Your task to perform on an android device: Clear the cart on target.com. Add "bose quietcomfort 35" to the cart on target.com Image 0: 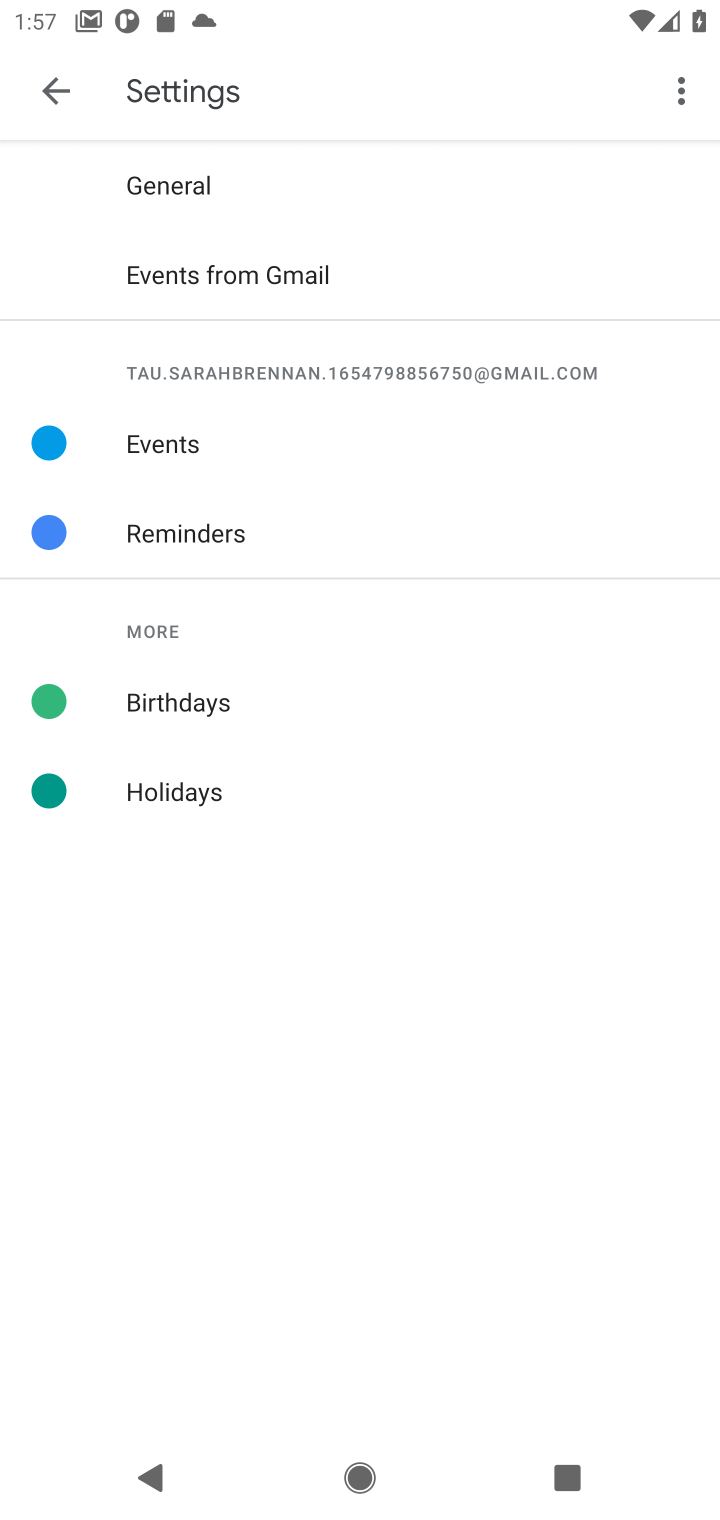
Step 0: press home button
Your task to perform on an android device: Clear the cart on target.com. Add "bose quietcomfort 35" to the cart on target.com Image 1: 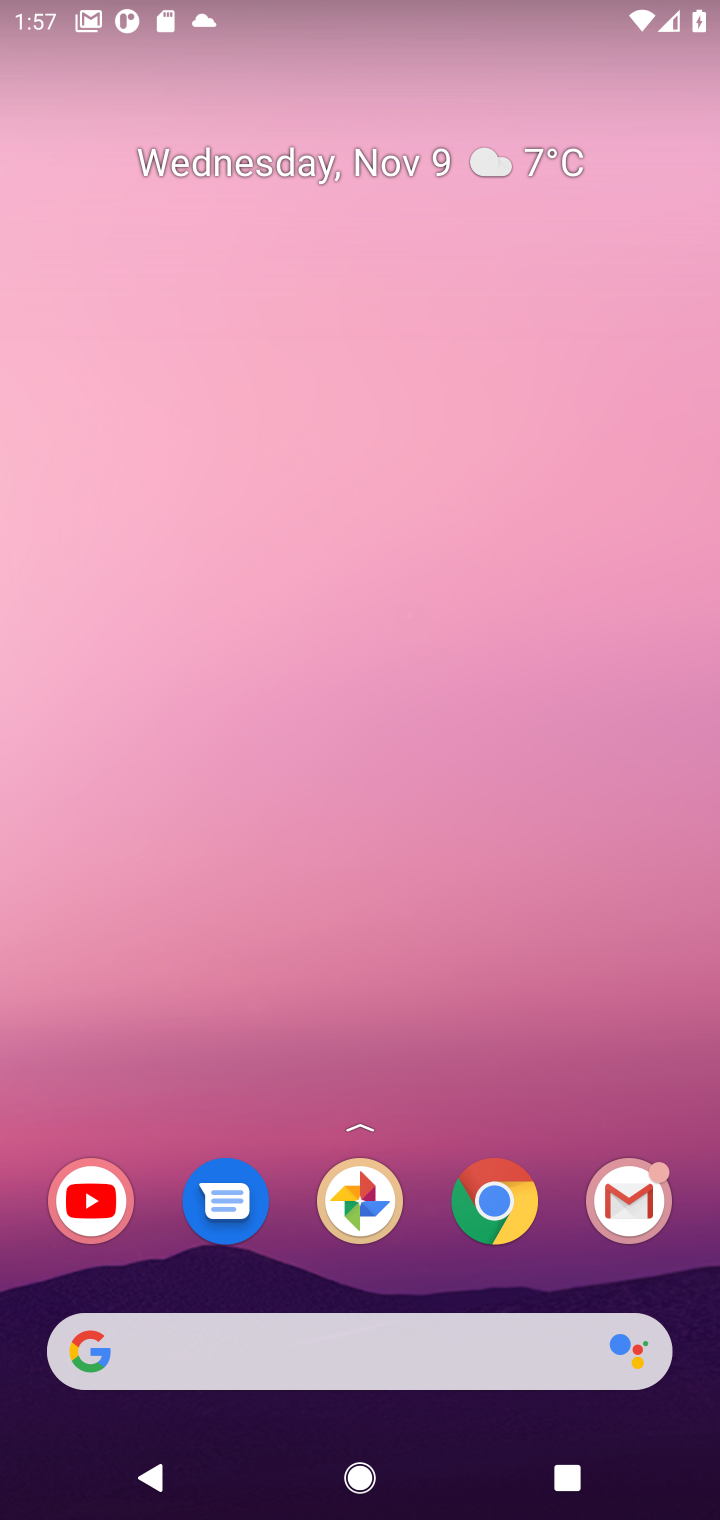
Step 1: click (358, 1348)
Your task to perform on an android device: Clear the cart on target.com. Add "bose quietcomfort 35" to the cart on target.com Image 2: 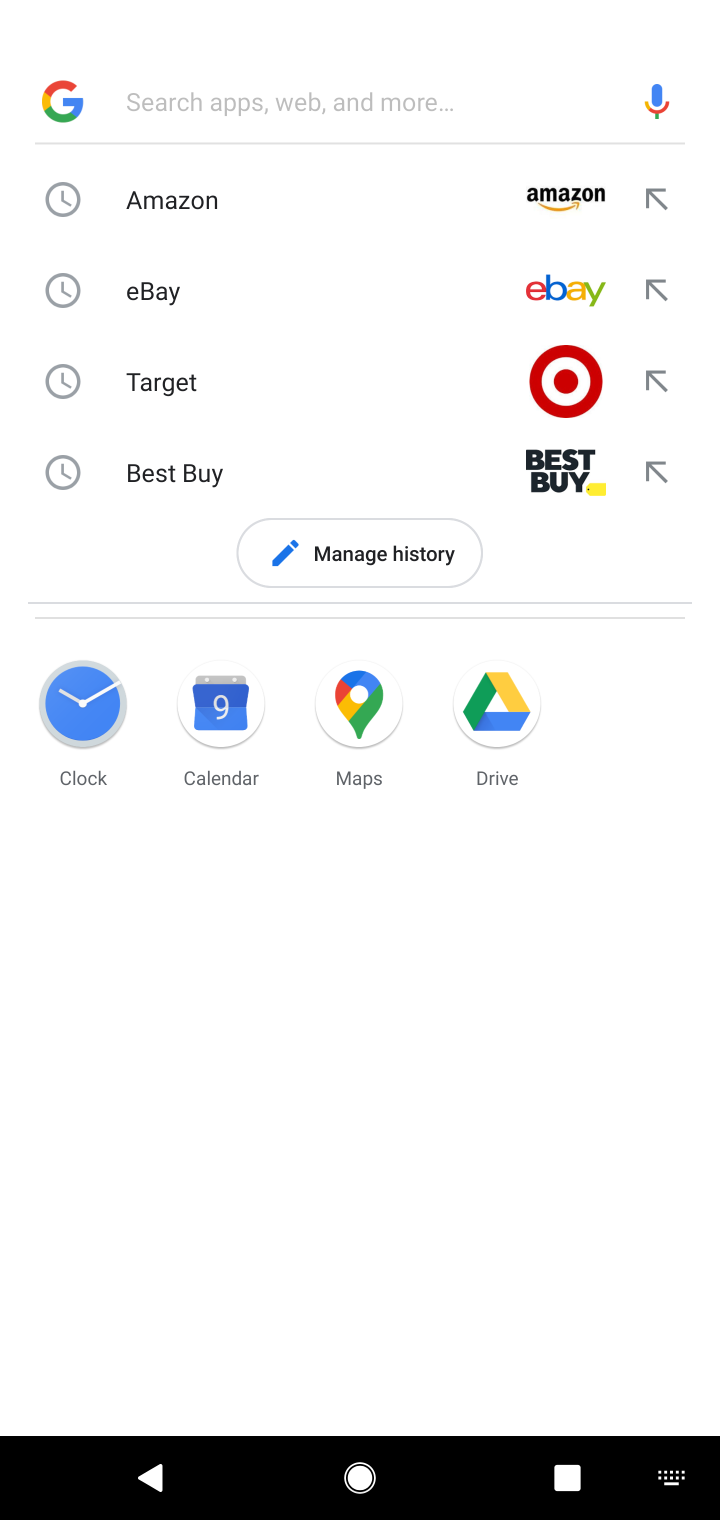
Step 2: click (155, 385)
Your task to perform on an android device: Clear the cart on target.com. Add "bose quietcomfort 35" to the cart on target.com Image 3: 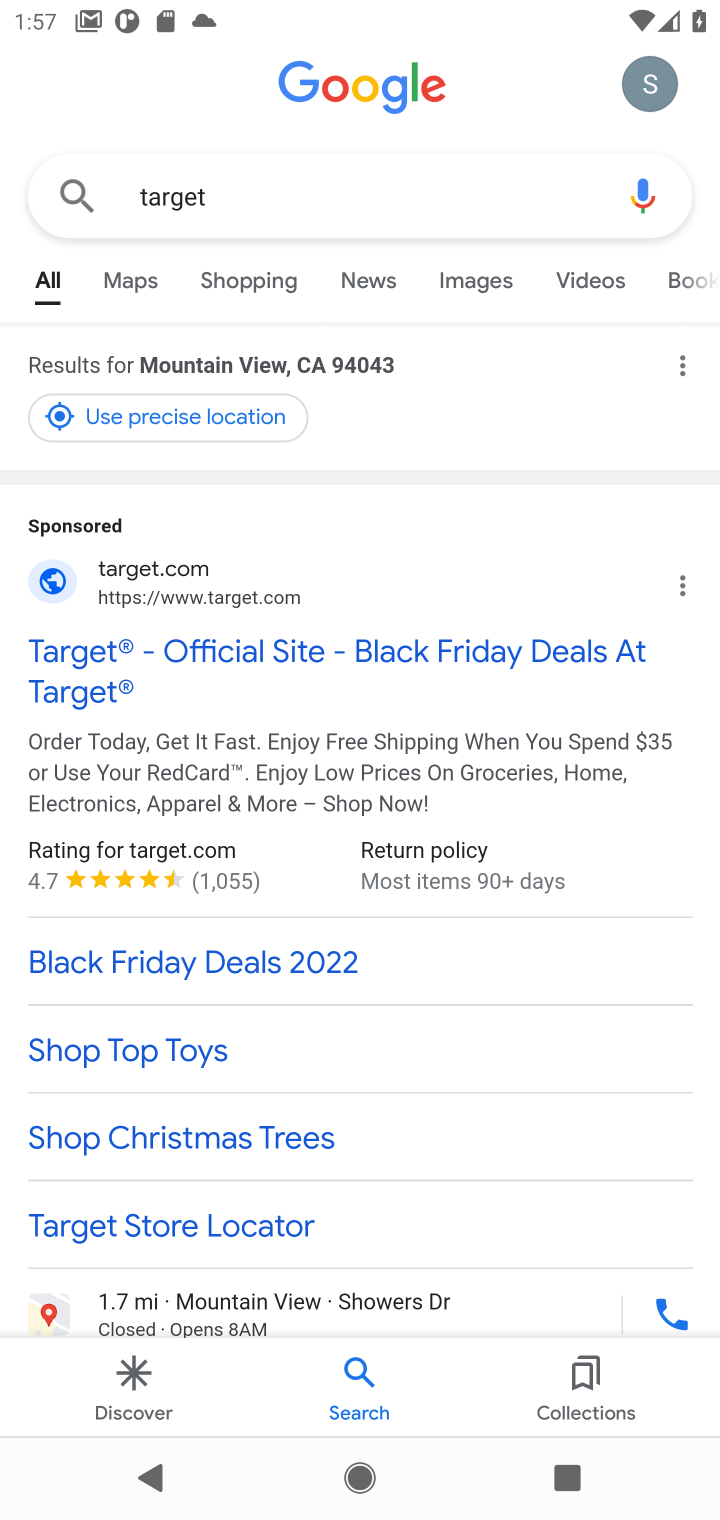
Step 3: click (151, 592)
Your task to perform on an android device: Clear the cart on target.com. Add "bose quietcomfort 35" to the cart on target.com Image 4: 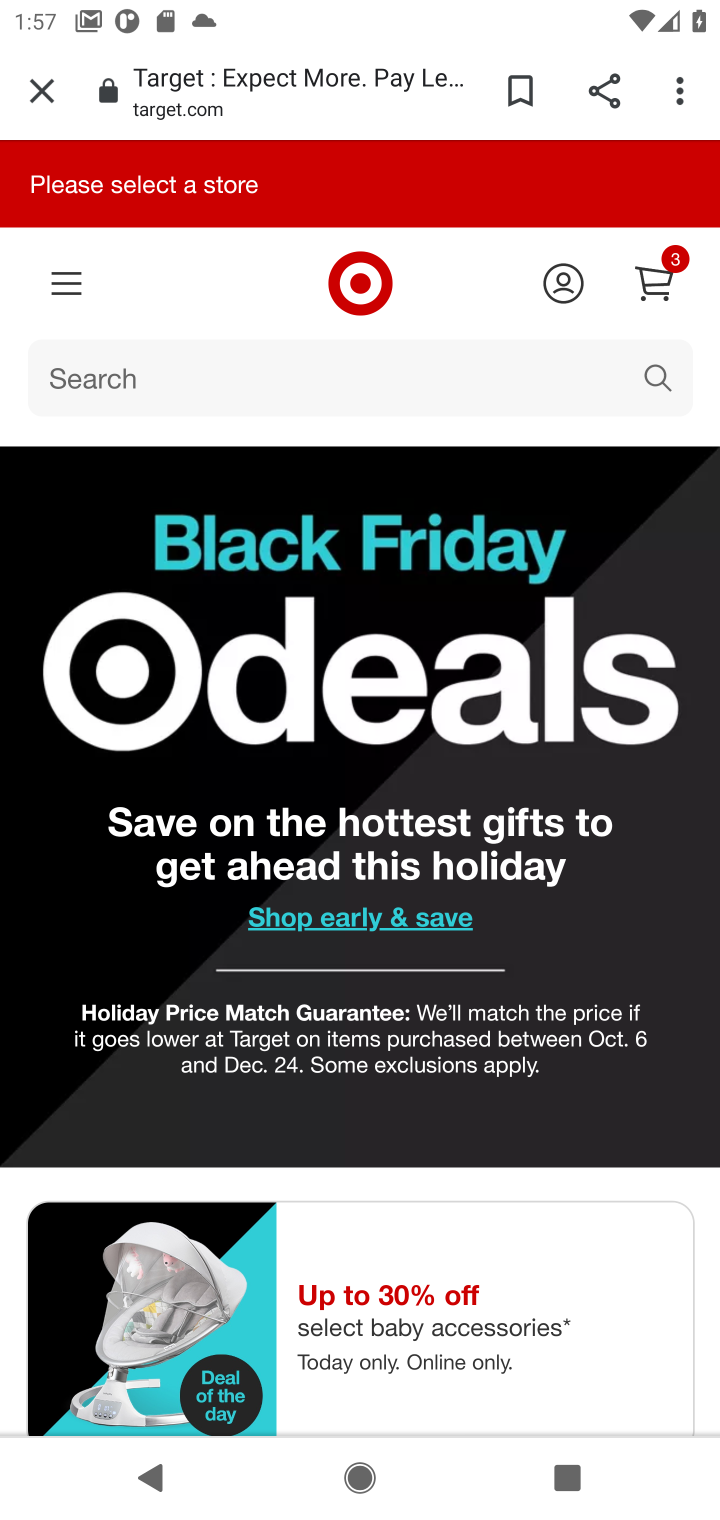
Step 4: click (310, 380)
Your task to perform on an android device: Clear the cart on target.com. Add "bose quietcomfort 35" to the cart on target.com Image 5: 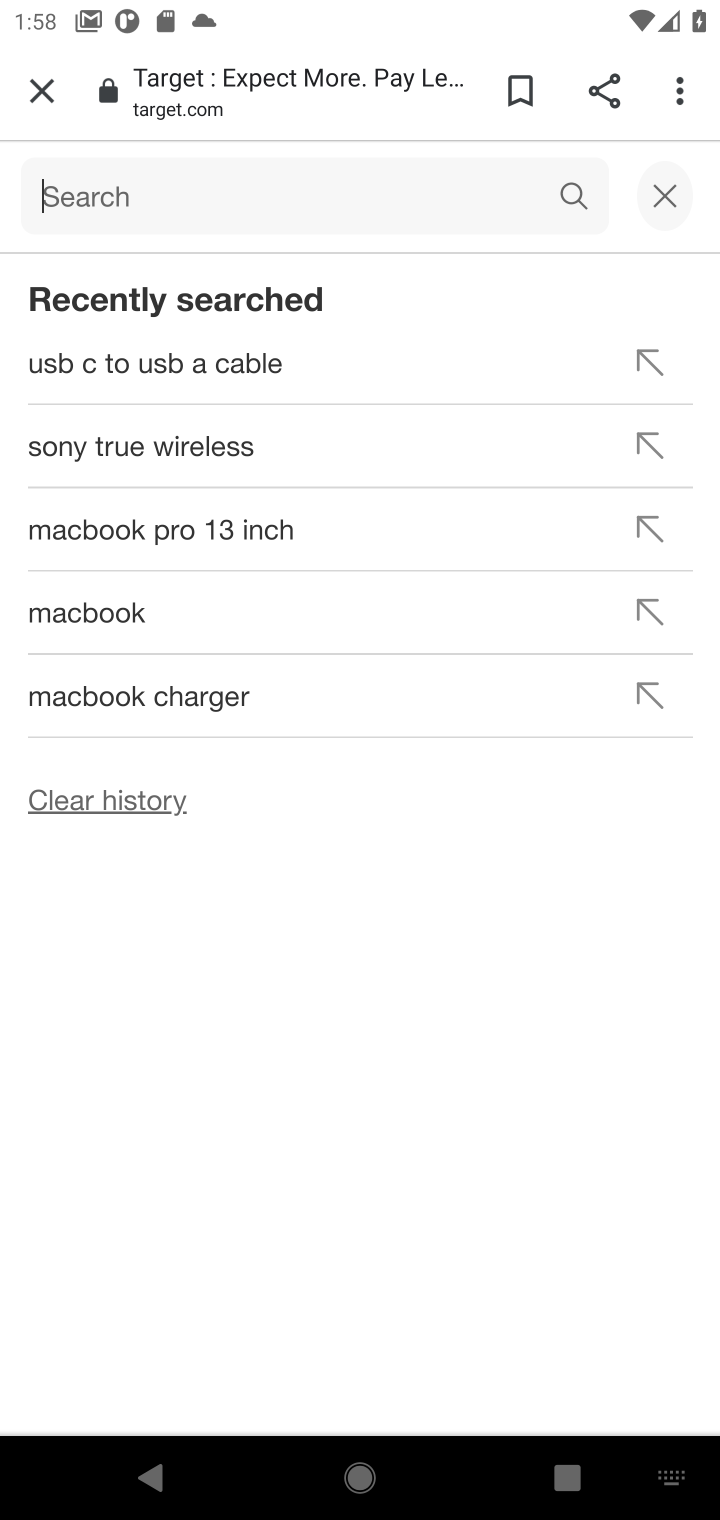
Step 5: type "bose quietcomfort 35"
Your task to perform on an android device: Clear the cart on target.com. Add "bose quietcomfort 35" to the cart on target.com Image 6: 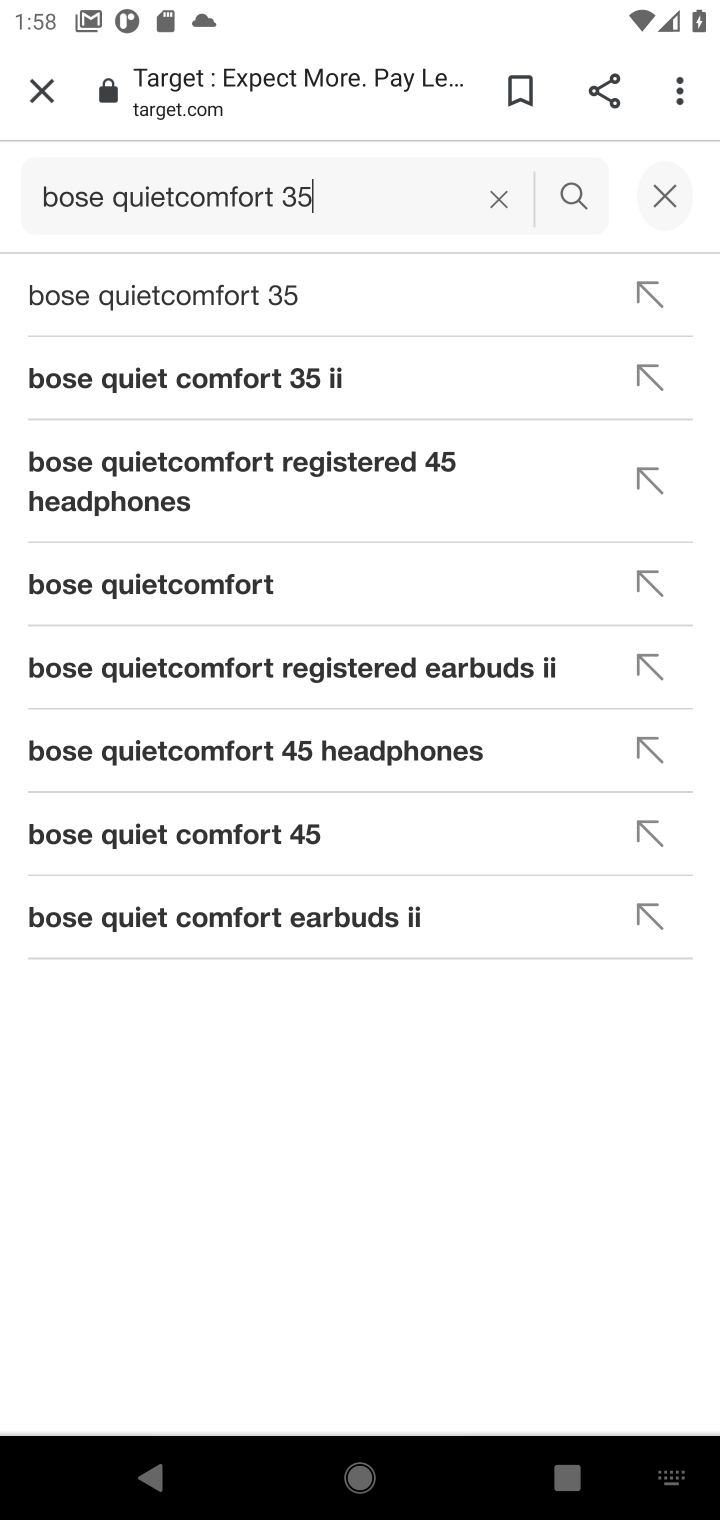
Step 6: click (243, 292)
Your task to perform on an android device: Clear the cart on target.com. Add "bose quietcomfort 35" to the cart on target.com Image 7: 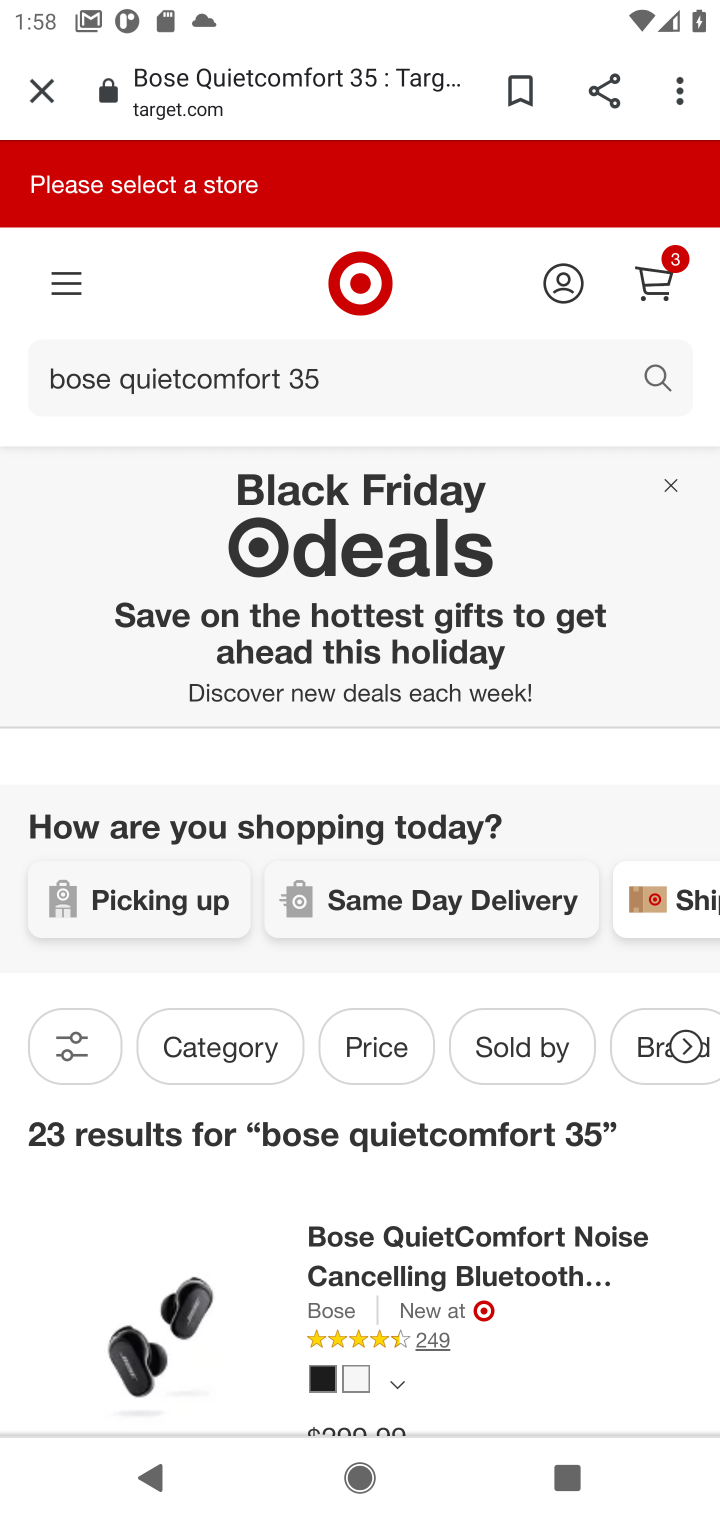
Step 7: drag from (253, 1242) to (313, 884)
Your task to perform on an android device: Clear the cart on target.com. Add "bose quietcomfort 35" to the cart on target.com Image 8: 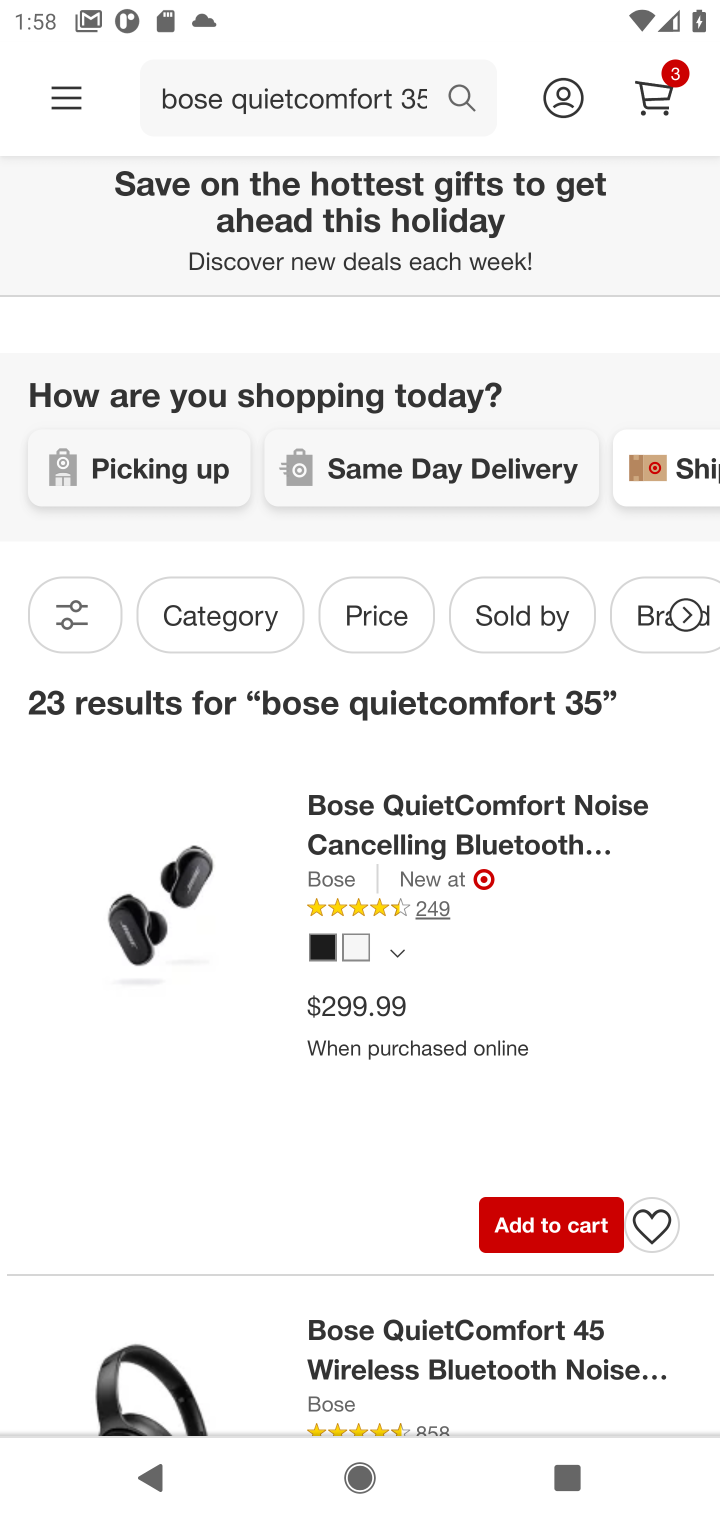
Step 8: click (548, 1229)
Your task to perform on an android device: Clear the cart on target.com. Add "bose quietcomfort 35" to the cart on target.com Image 9: 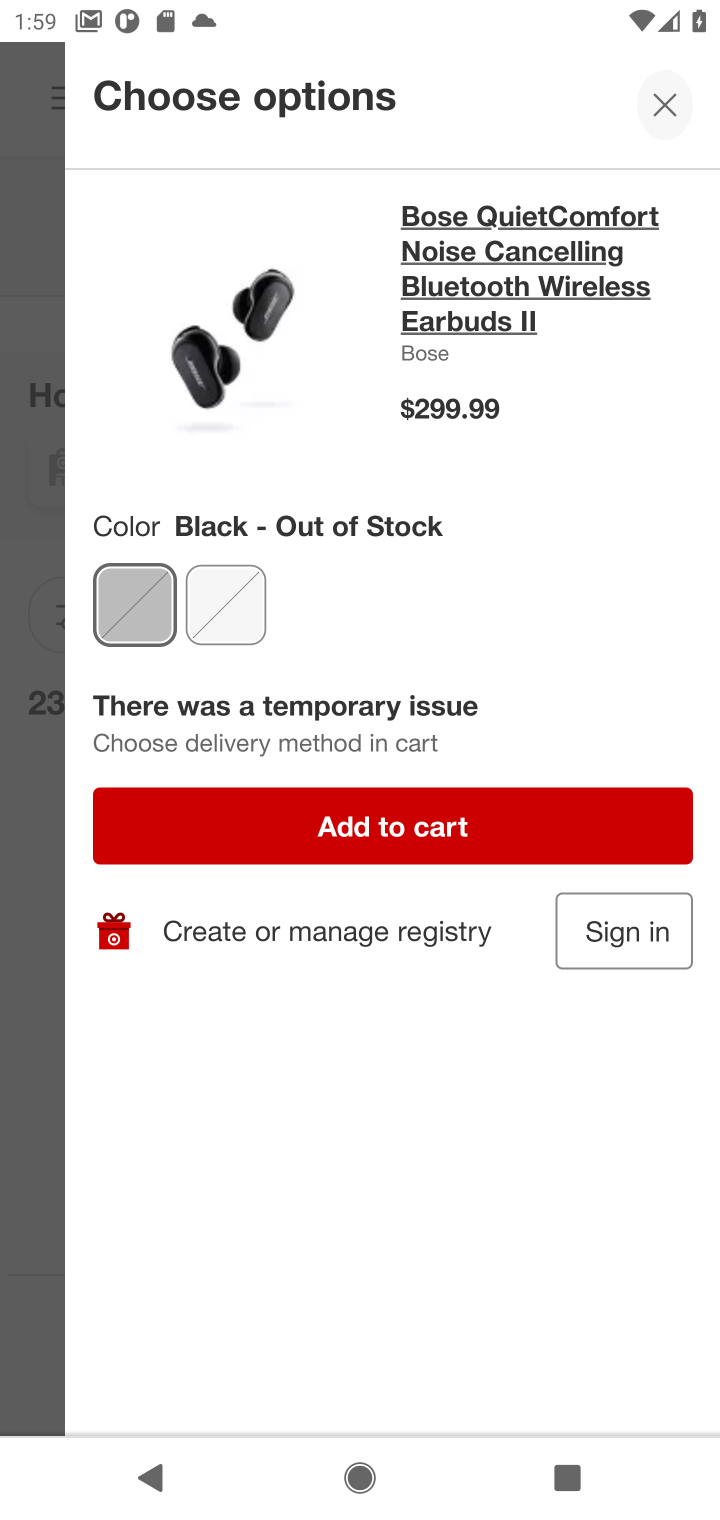
Step 9: click (312, 819)
Your task to perform on an android device: Clear the cart on target.com. Add "bose quietcomfort 35" to the cart on target.com Image 10: 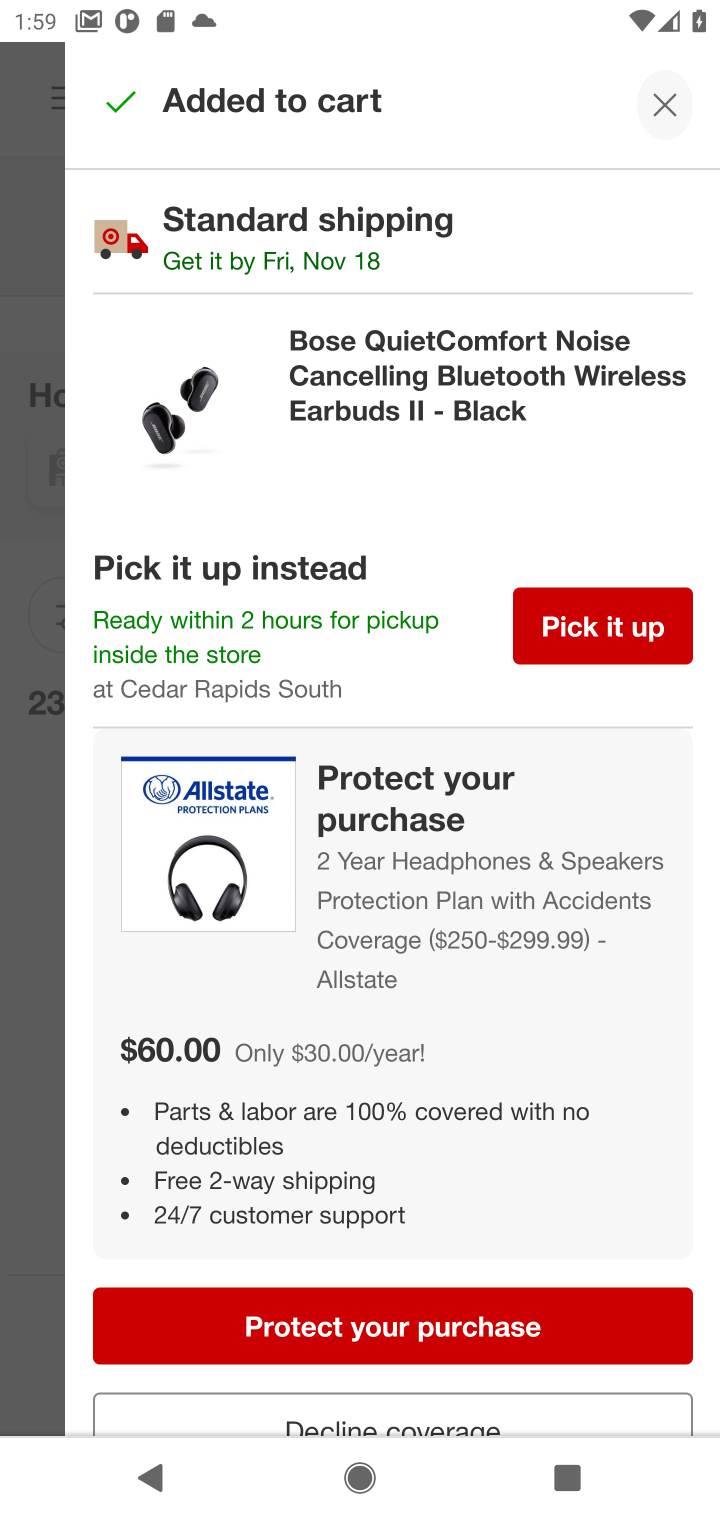
Step 10: click (384, 1414)
Your task to perform on an android device: Clear the cart on target.com. Add "bose quietcomfort 35" to the cart on target.com Image 11: 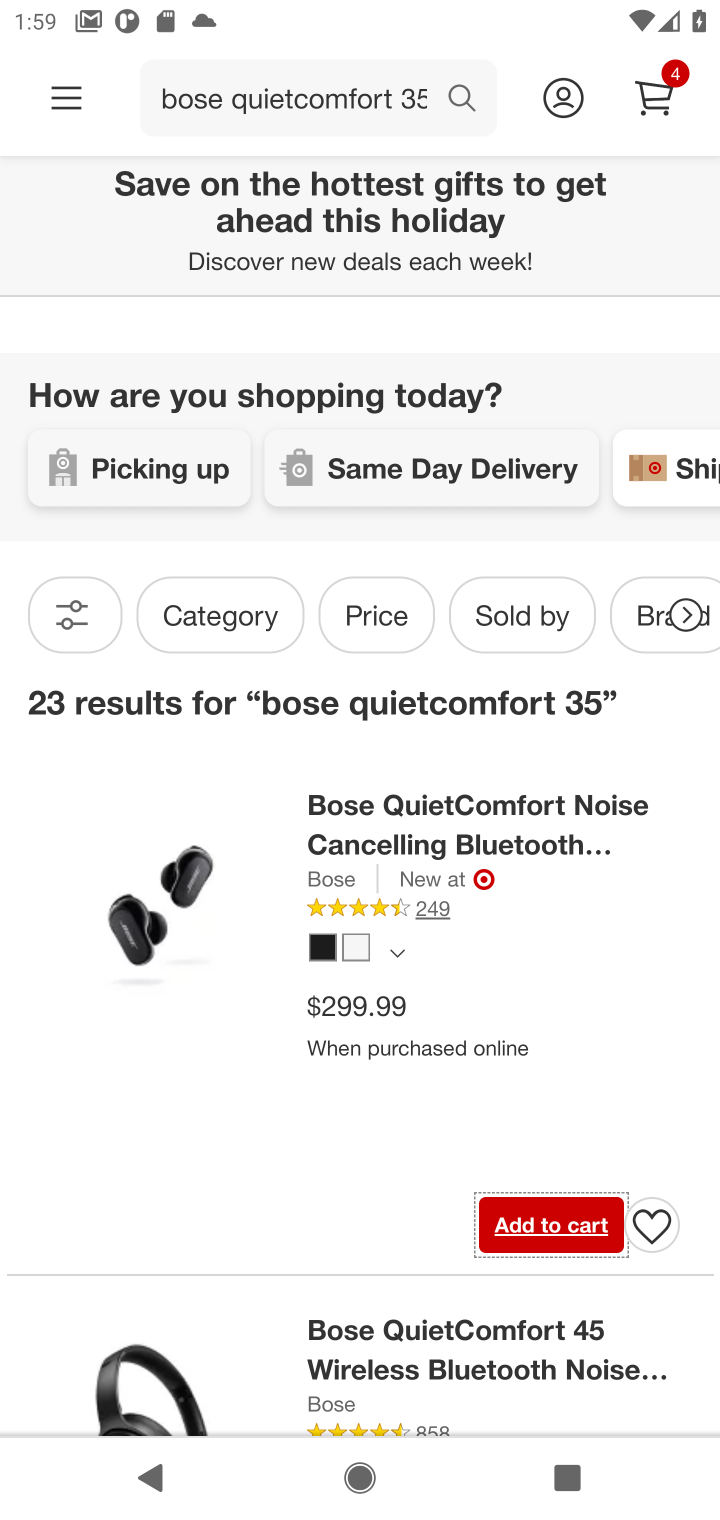
Step 11: task complete